Your task to perform on an android device: turn on the 12-hour format for clock Image 0: 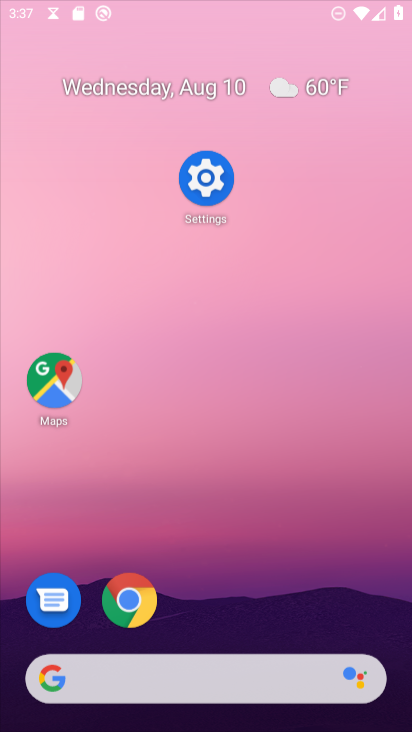
Step 0: press home button
Your task to perform on an android device: turn on the 12-hour format for clock Image 1: 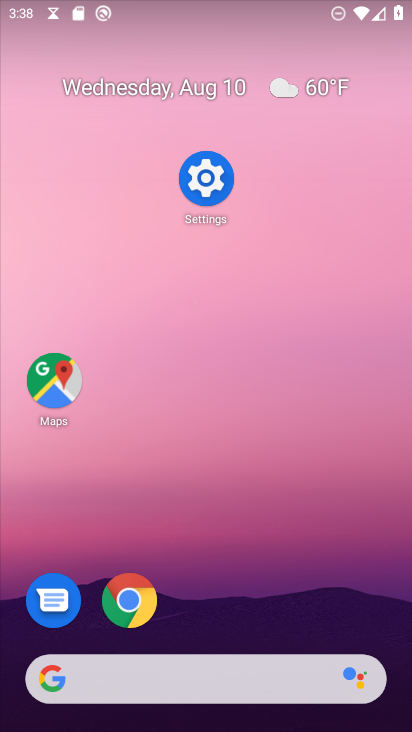
Step 1: click (205, 201)
Your task to perform on an android device: turn on the 12-hour format for clock Image 2: 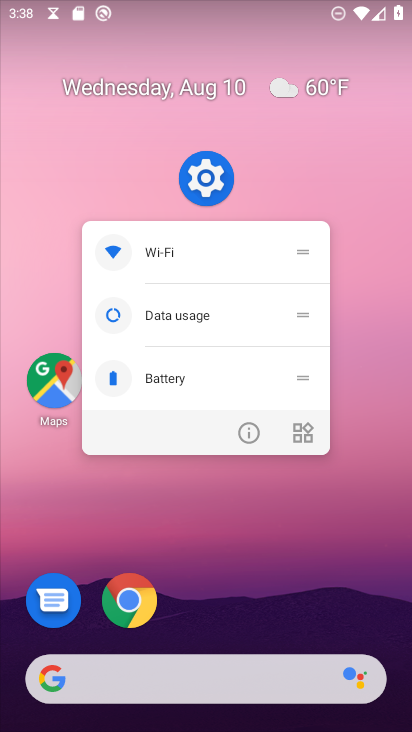
Step 2: click (205, 201)
Your task to perform on an android device: turn on the 12-hour format for clock Image 3: 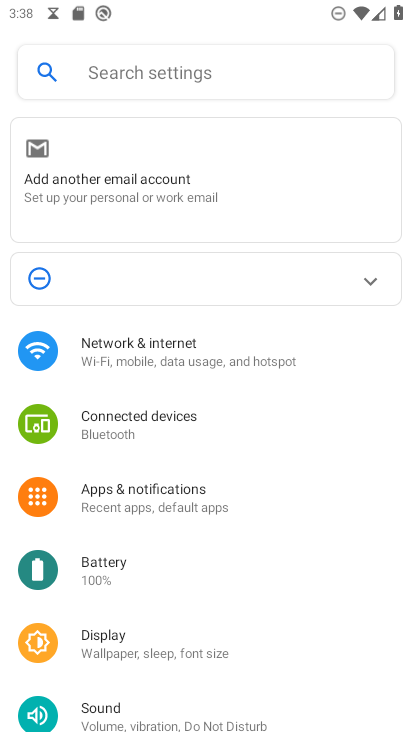
Step 3: drag from (271, 682) to (246, 162)
Your task to perform on an android device: turn on the 12-hour format for clock Image 4: 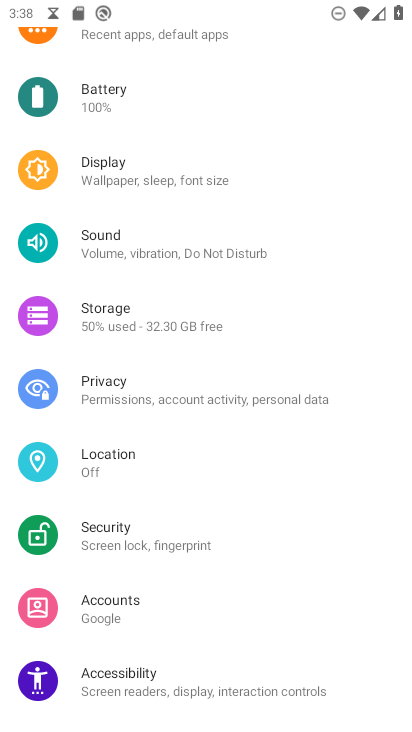
Step 4: drag from (271, 589) to (298, 174)
Your task to perform on an android device: turn on the 12-hour format for clock Image 5: 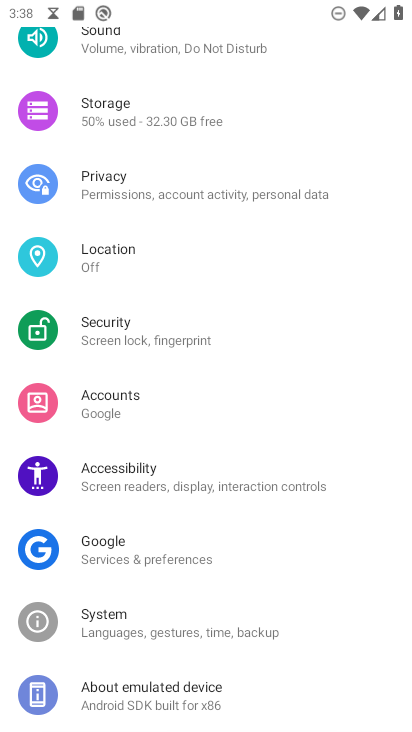
Step 5: click (93, 619)
Your task to perform on an android device: turn on the 12-hour format for clock Image 6: 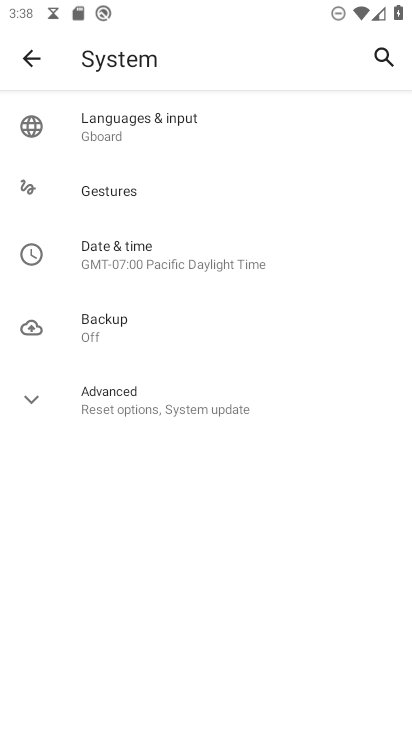
Step 6: click (125, 257)
Your task to perform on an android device: turn on the 12-hour format for clock Image 7: 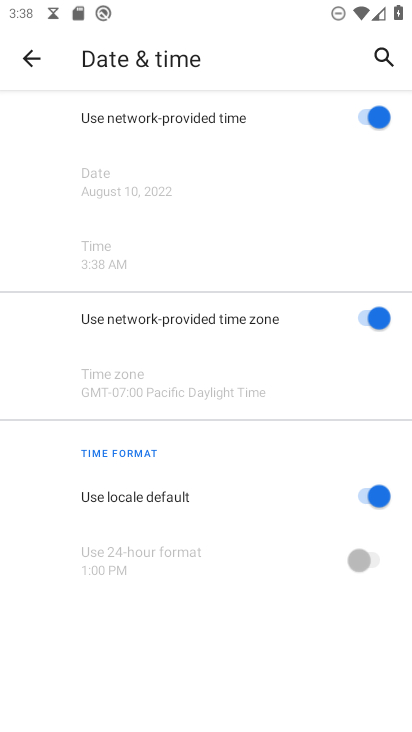
Step 7: click (380, 492)
Your task to perform on an android device: turn on the 12-hour format for clock Image 8: 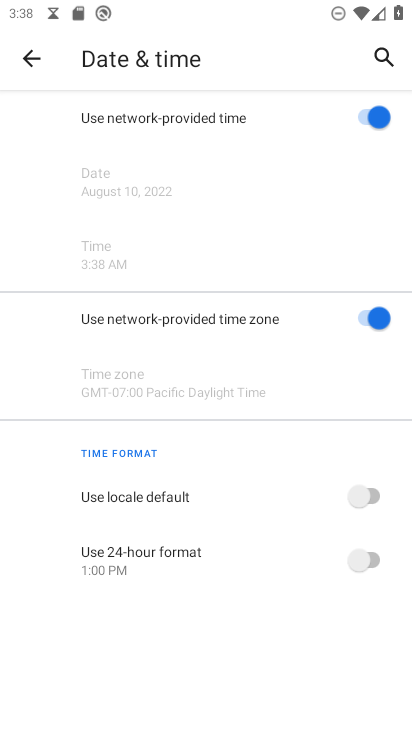
Step 8: task complete